Your task to perform on an android device: Go to privacy settings Image 0: 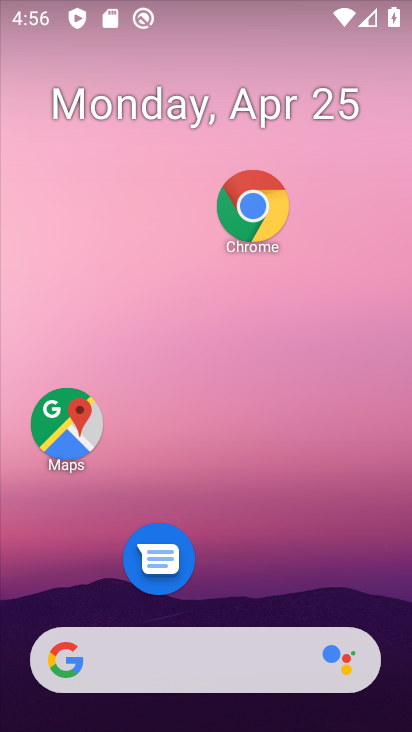
Step 0: drag from (290, 575) to (192, 71)
Your task to perform on an android device: Go to privacy settings Image 1: 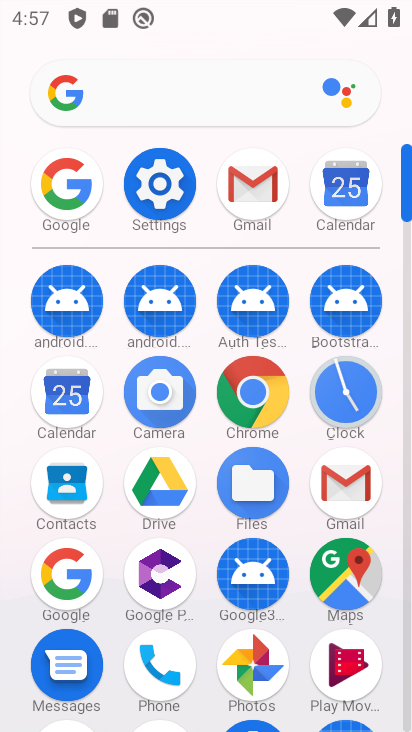
Step 1: click (161, 185)
Your task to perform on an android device: Go to privacy settings Image 2: 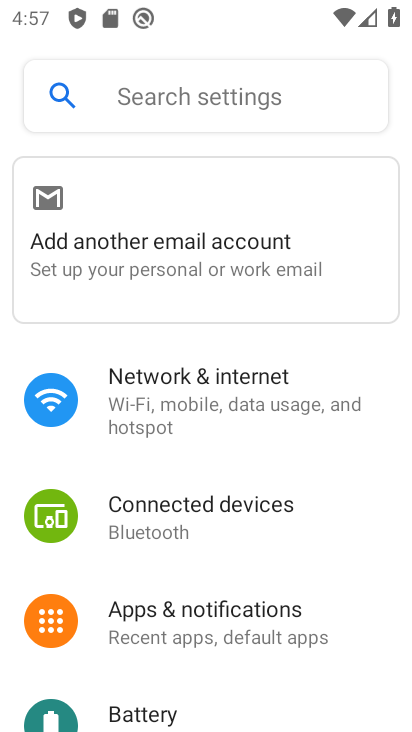
Step 2: drag from (218, 556) to (249, 439)
Your task to perform on an android device: Go to privacy settings Image 3: 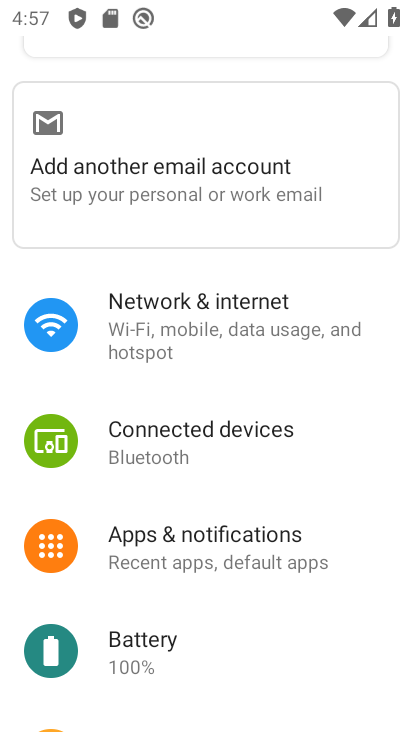
Step 3: drag from (201, 612) to (244, 445)
Your task to perform on an android device: Go to privacy settings Image 4: 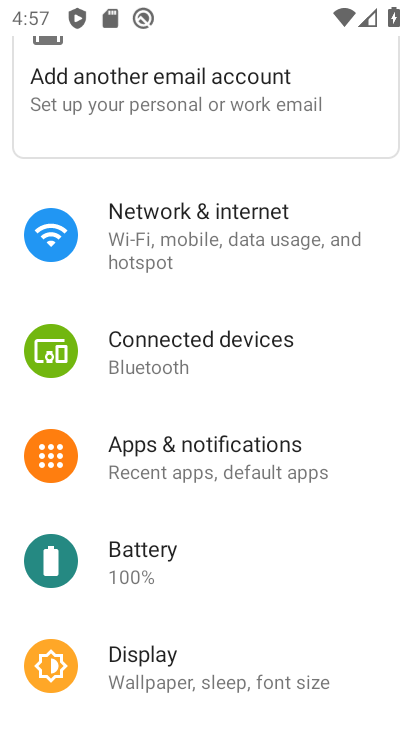
Step 4: drag from (215, 609) to (252, 511)
Your task to perform on an android device: Go to privacy settings Image 5: 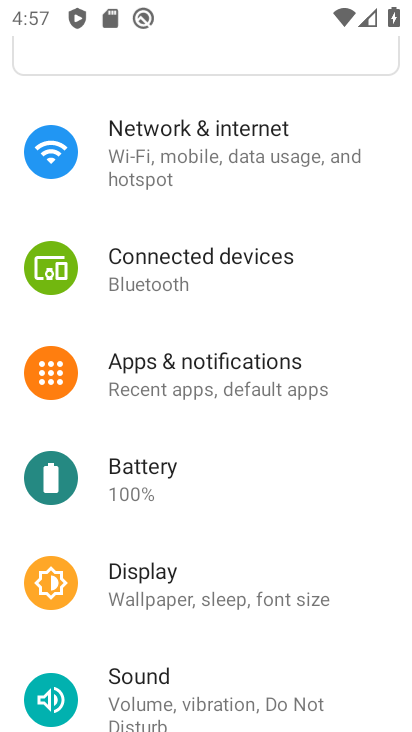
Step 5: drag from (187, 676) to (254, 515)
Your task to perform on an android device: Go to privacy settings Image 6: 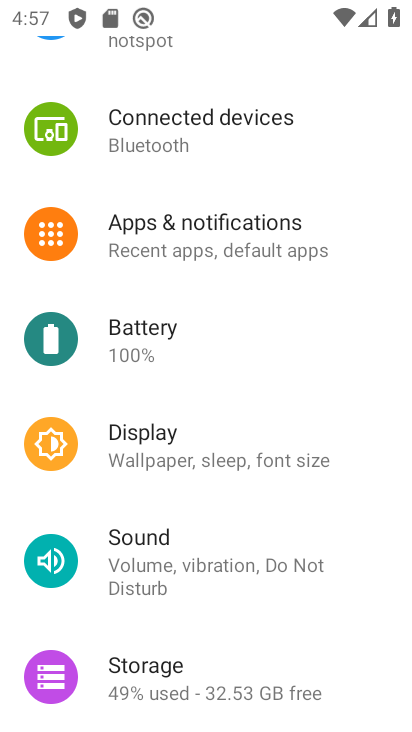
Step 6: drag from (196, 621) to (250, 497)
Your task to perform on an android device: Go to privacy settings Image 7: 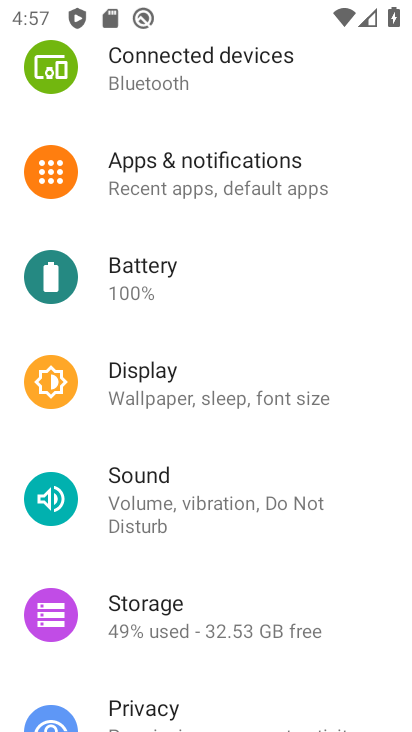
Step 7: drag from (201, 668) to (259, 545)
Your task to perform on an android device: Go to privacy settings Image 8: 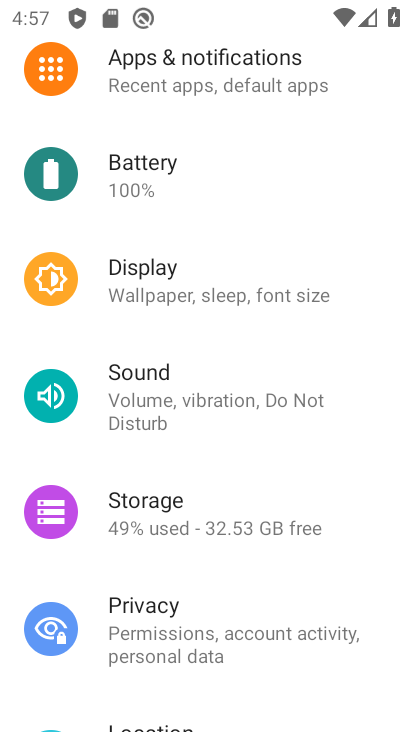
Step 8: click (172, 605)
Your task to perform on an android device: Go to privacy settings Image 9: 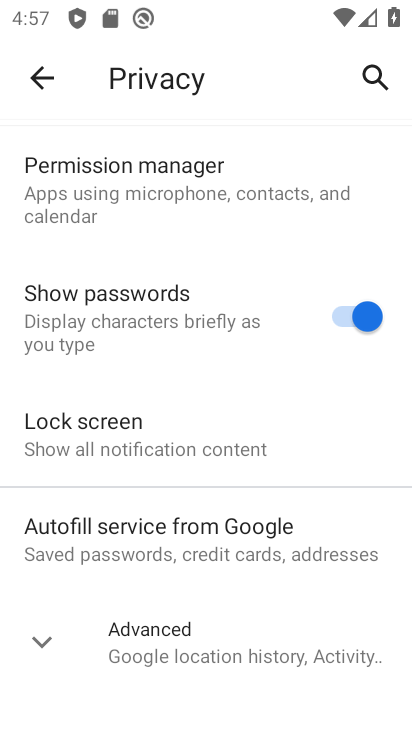
Step 9: task complete